Your task to perform on an android device: Go to Yahoo.com Image 0: 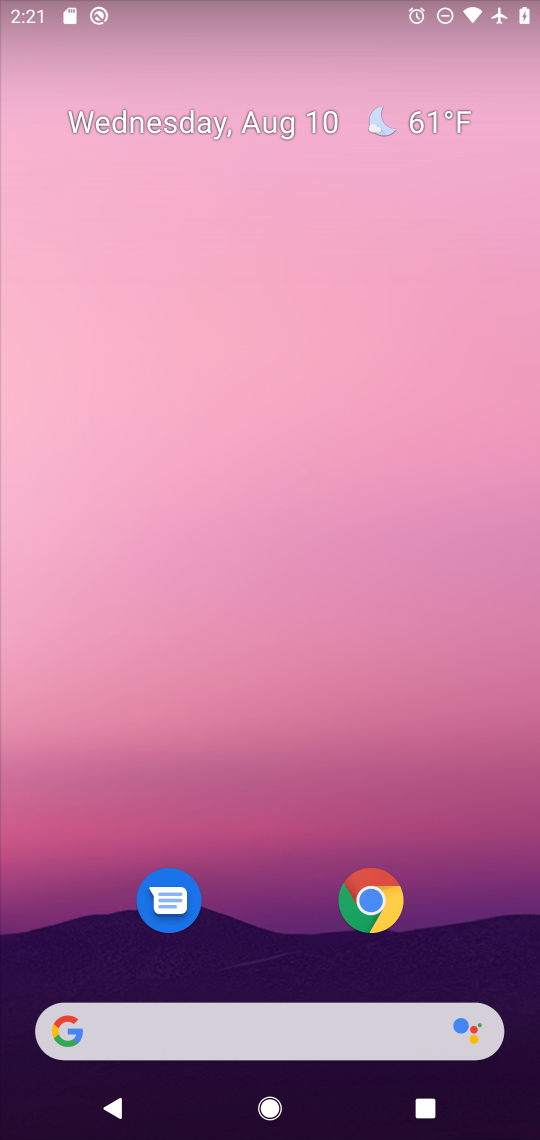
Step 0: click (307, 1042)
Your task to perform on an android device: Go to Yahoo.com Image 1: 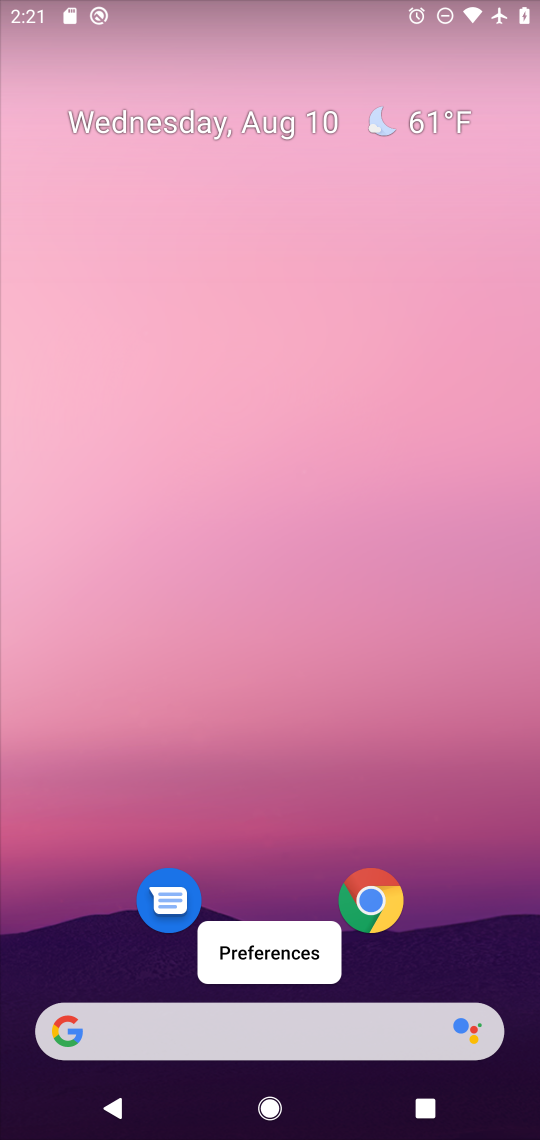
Step 1: click (307, 1044)
Your task to perform on an android device: Go to Yahoo.com Image 2: 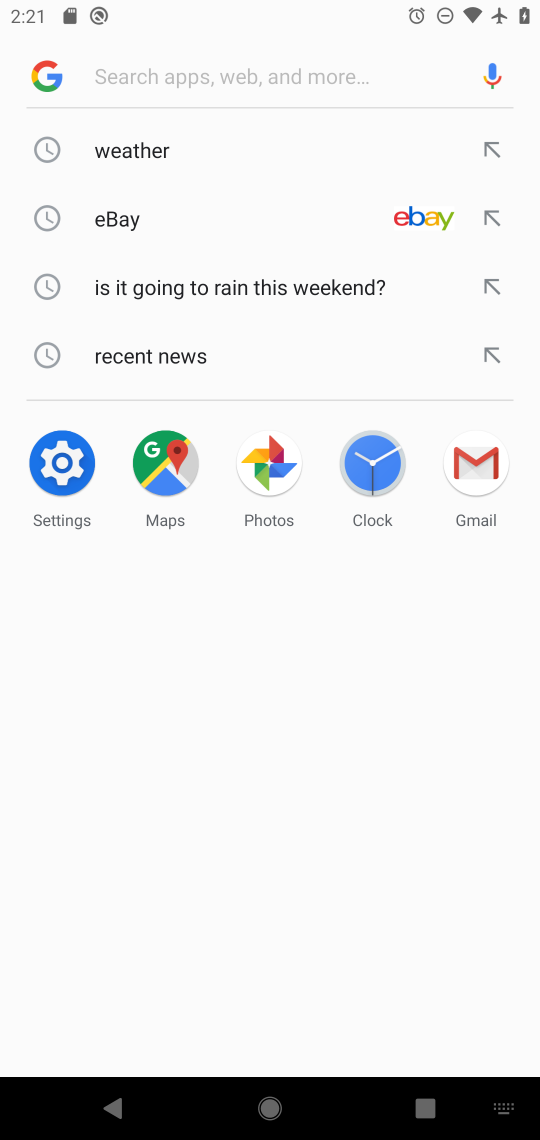
Step 2: type "yahoo.com"
Your task to perform on an android device: Go to Yahoo.com Image 3: 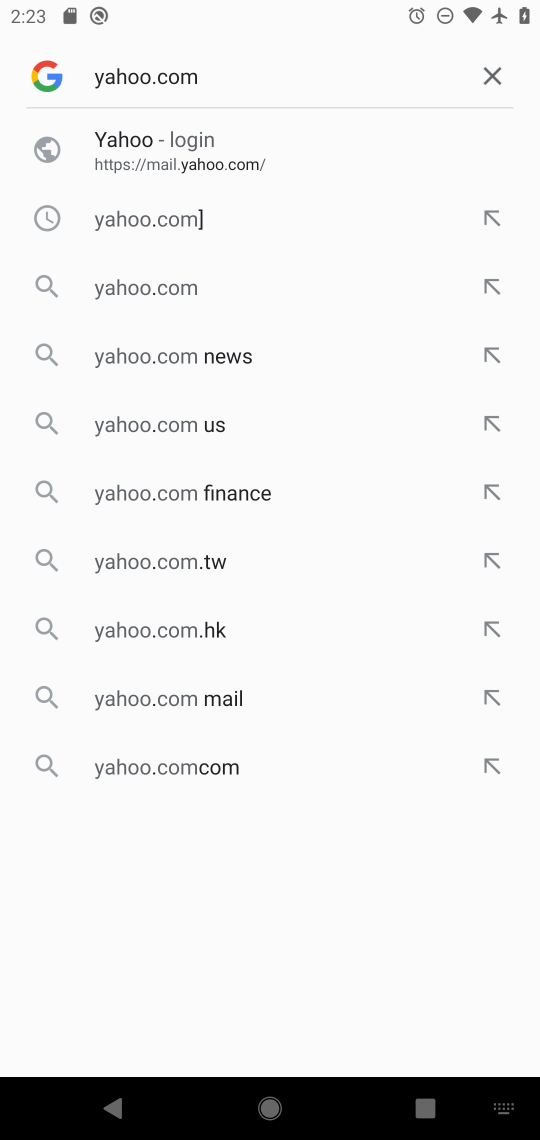
Step 3: click (201, 136)
Your task to perform on an android device: Go to Yahoo.com Image 4: 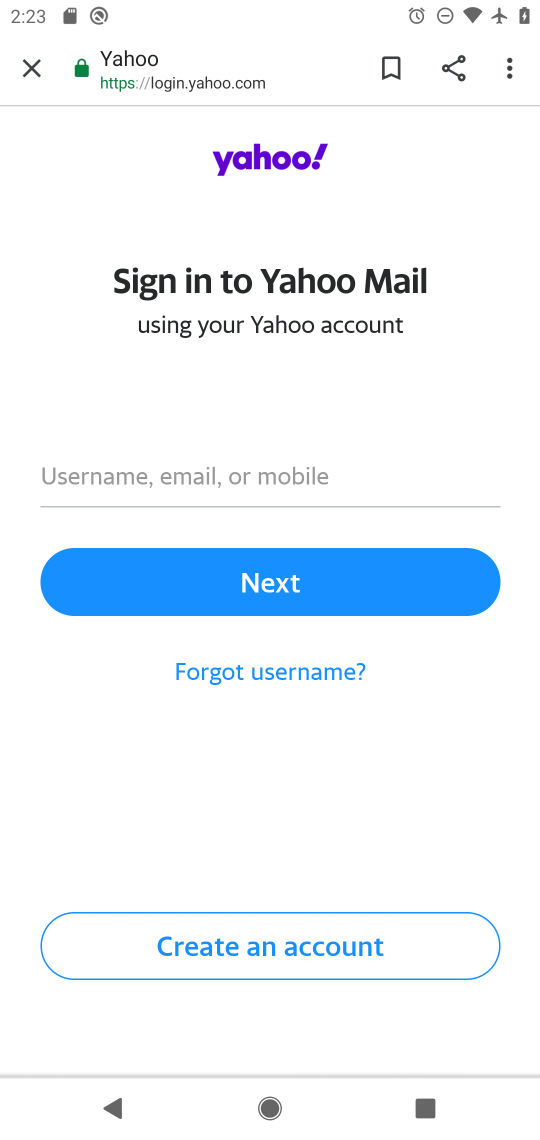
Step 4: task complete